Your task to perform on an android device: clear history in the chrome app Image 0: 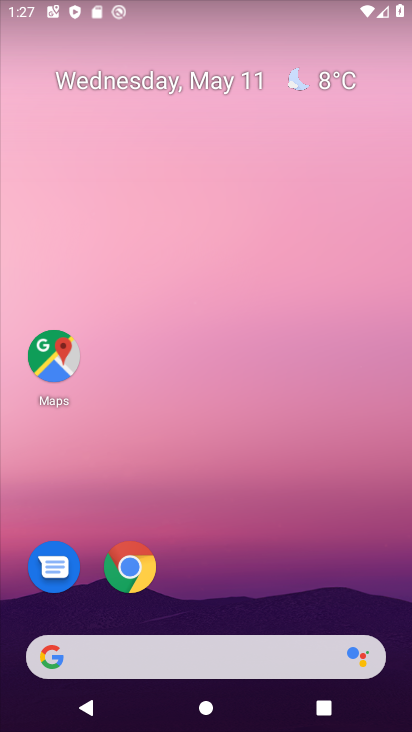
Step 0: click (147, 567)
Your task to perform on an android device: clear history in the chrome app Image 1: 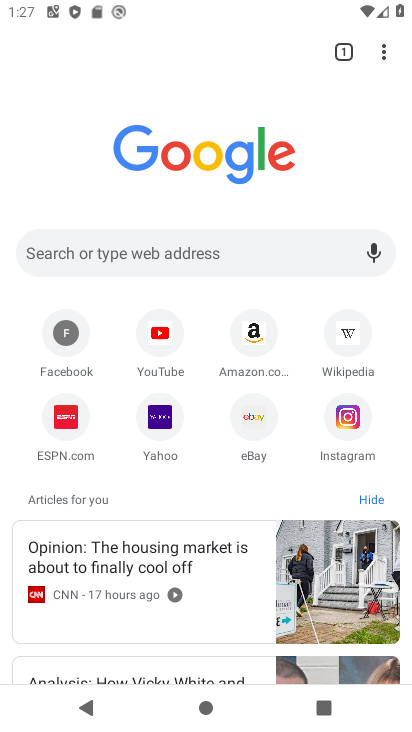
Step 1: click (383, 60)
Your task to perform on an android device: clear history in the chrome app Image 2: 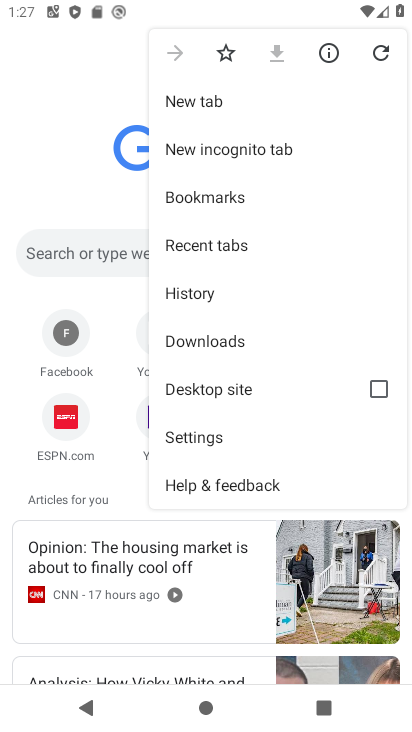
Step 2: click (238, 293)
Your task to perform on an android device: clear history in the chrome app Image 3: 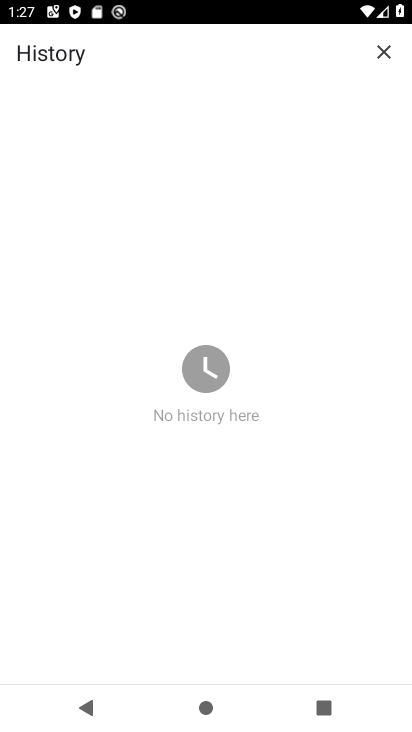
Step 3: task complete